Your task to perform on an android device: Open Youtube and go to "Your channel" Image 0: 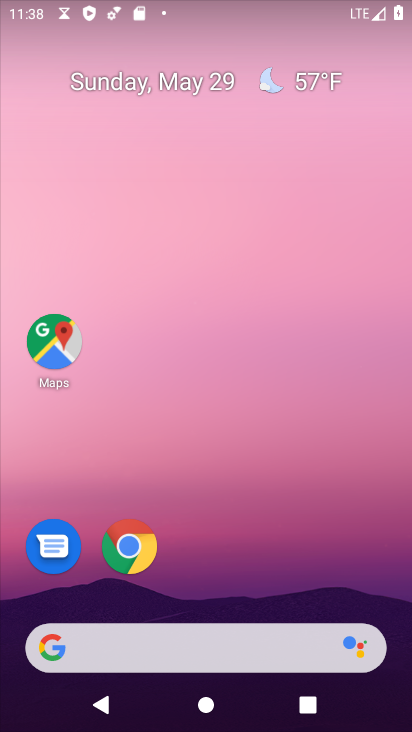
Step 0: press home button
Your task to perform on an android device: Open Youtube and go to "Your channel" Image 1: 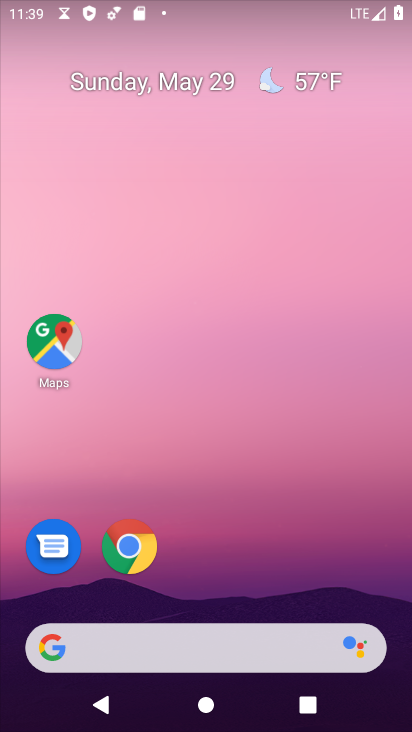
Step 1: drag from (259, 404) to (321, 186)
Your task to perform on an android device: Open Youtube and go to "Your channel" Image 2: 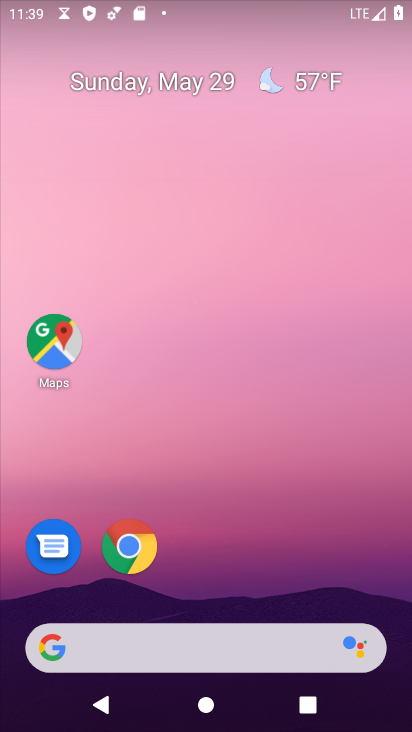
Step 2: drag from (325, 393) to (410, 50)
Your task to perform on an android device: Open Youtube and go to "Your channel" Image 3: 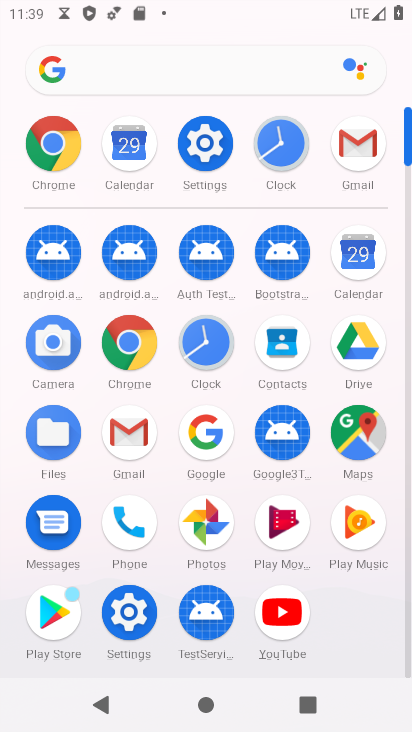
Step 3: click (278, 625)
Your task to perform on an android device: Open Youtube and go to "Your channel" Image 4: 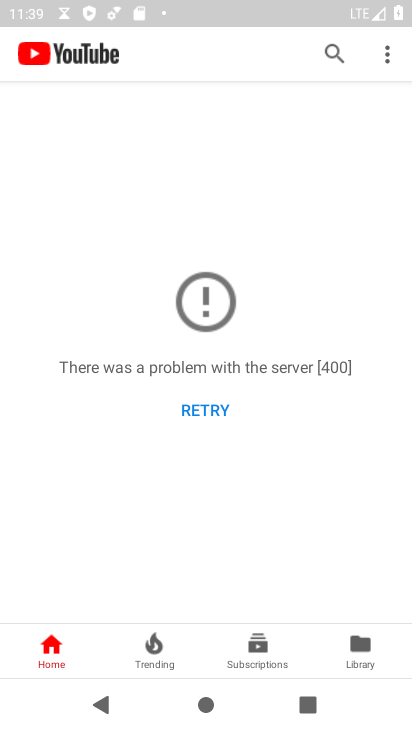
Step 4: click (209, 413)
Your task to perform on an android device: Open Youtube and go to "Your channel" Image 5: 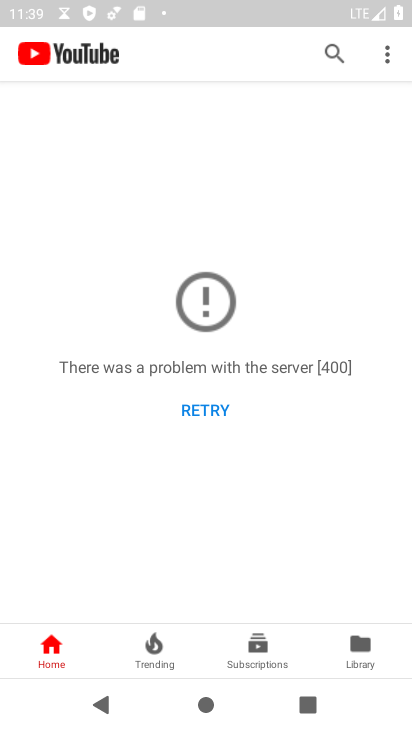
Step 5: click (209, 410)
Your task to perform on an android device: Open Youtube and go to "Your channel" Image 6: 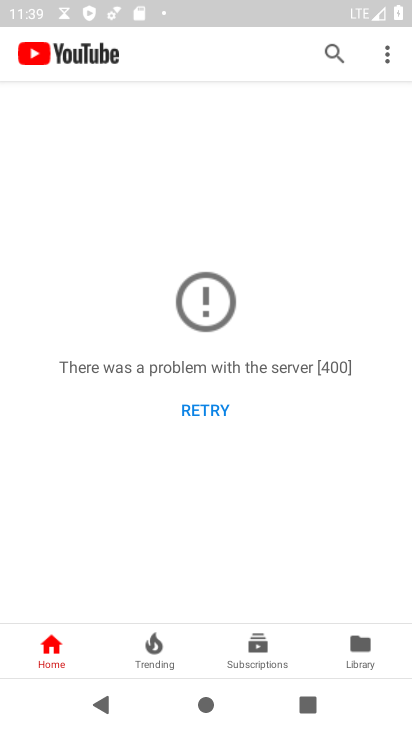
Step 6: click (209, 410)
Your task to perform on an android device: Open Youtube and go to "Your channel" Image 7: 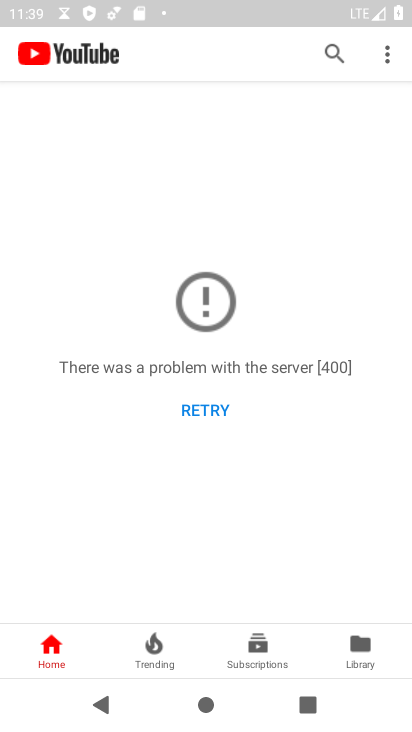
Step 7: task complete